Your task to perform on an android device: Open calendar and show me the second week of next month Image 0: 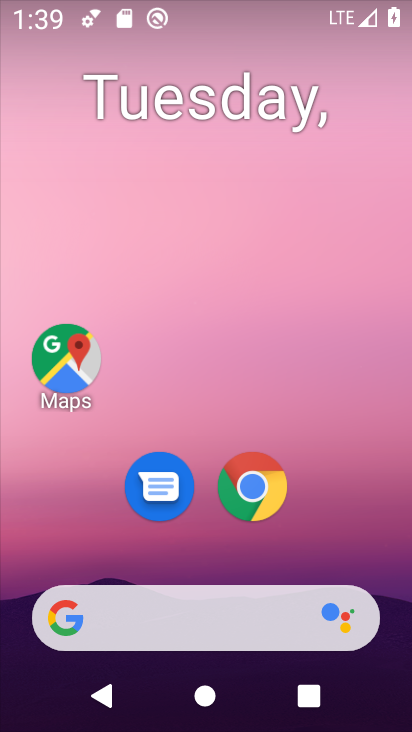
Step 0: drag from (351, 528) to (367, 211)
Your task to perform on an android device: Open calendar and show me the second week of next month Image 1: 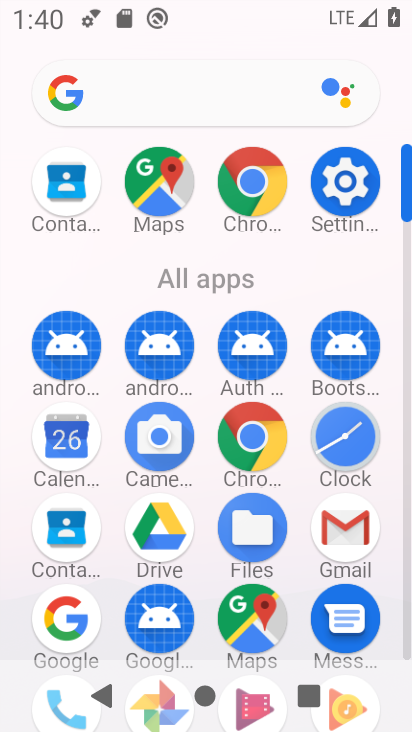
Step 1: click (49, 440)
Your task to perform on an android device: Open calendar and show me the second week of next month Image 2: 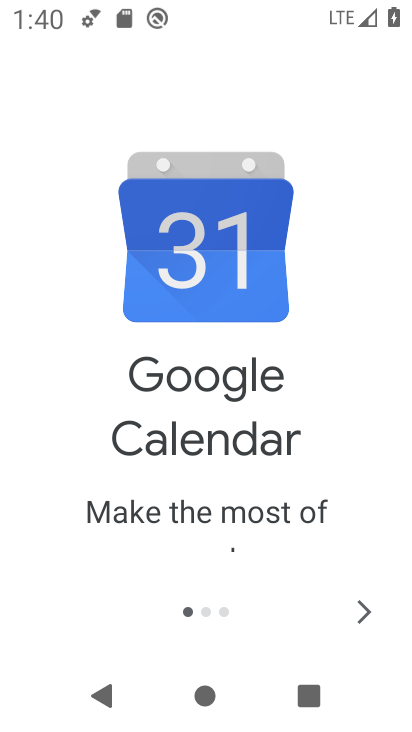
Step 2: click (342, 604)
Your task to perform on an android device: Open calendar and show me the second week of next month Image 3: 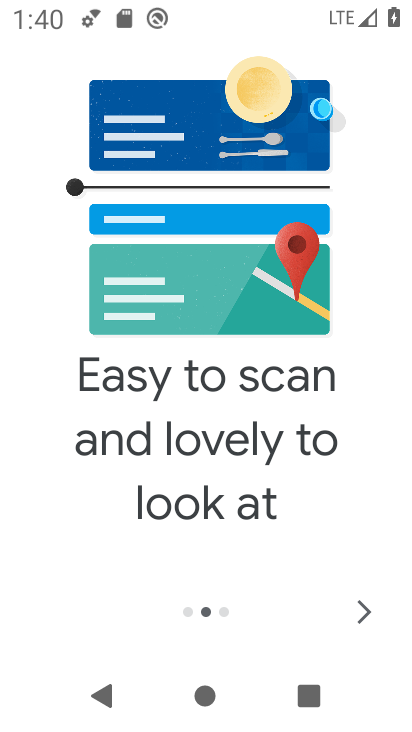
Step 3: click (358, 611)
Your task to perform on an android device: Open calendar and show me the second week of next month Image 4: 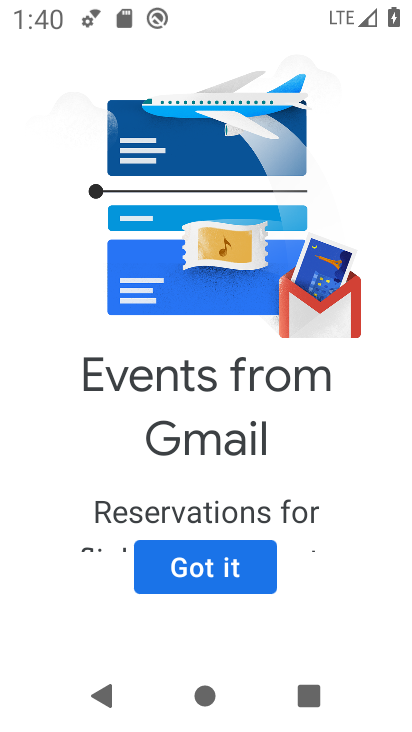
Step 4: click (247, 585)
Your task to perform on an android device: Open calendar and show me the second week of next month Image 5: 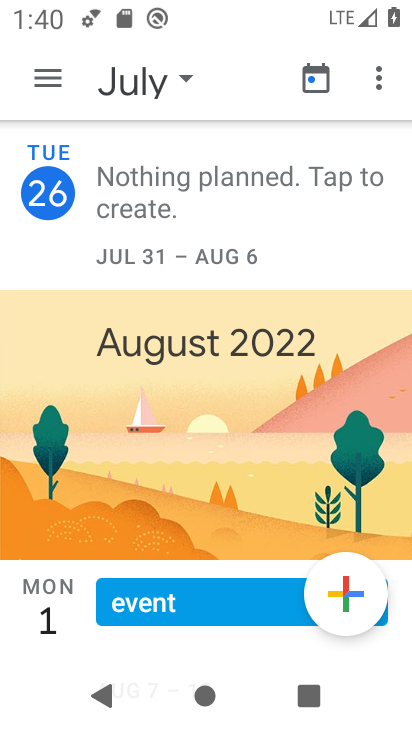
Step 5: click (176, 84)
Your task to perform on an android device: Open calendar and show me the second week of next month Image 6: 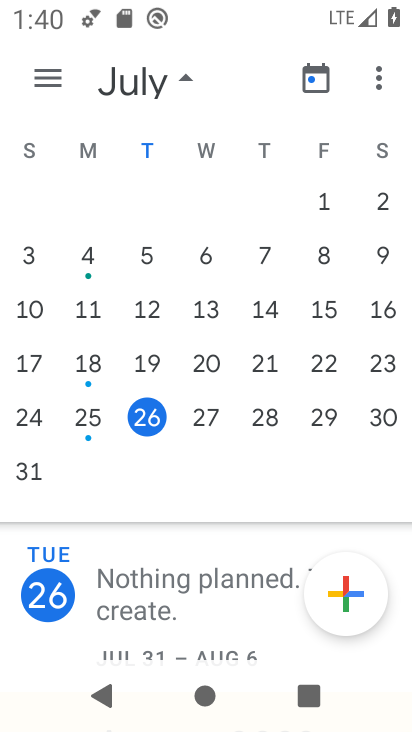
Step 6: drag from (391, 222) to (79, 216)
Your task to perform on an android device: Open calendar and show me the second week of next month Image 7: 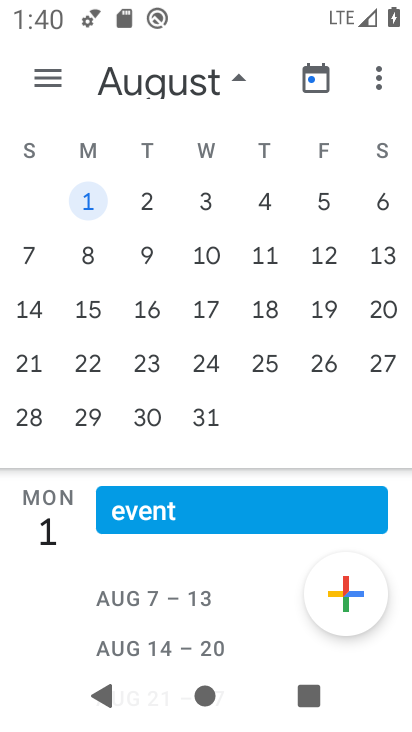
Step 7: click (78, 266)
Your task to perform on an android device: Open calendar and show me the second week of next month Image 8: 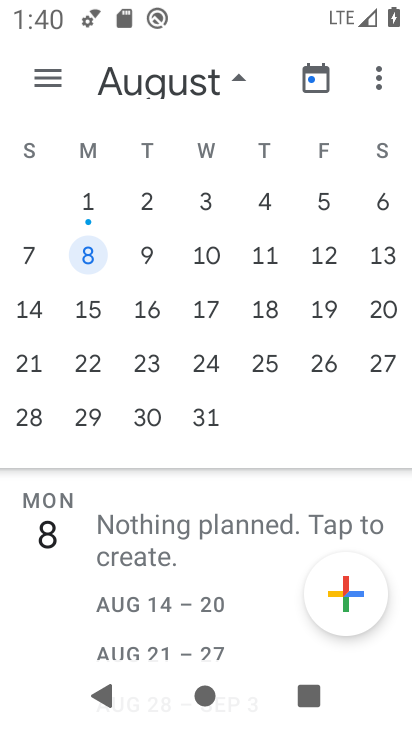
Step 8: task complete